Your task to perform on an android device: Go to notification settings Image 0: 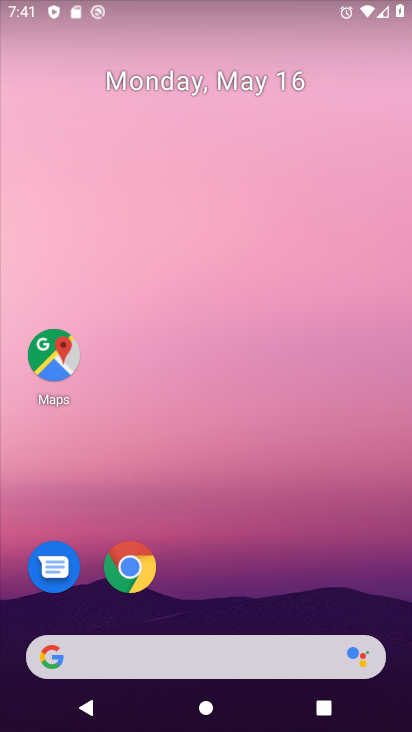
Step 0: drag from (224, 617) to (222, 70)
Your task to perform on an android device: Go to notification settings Image 1: 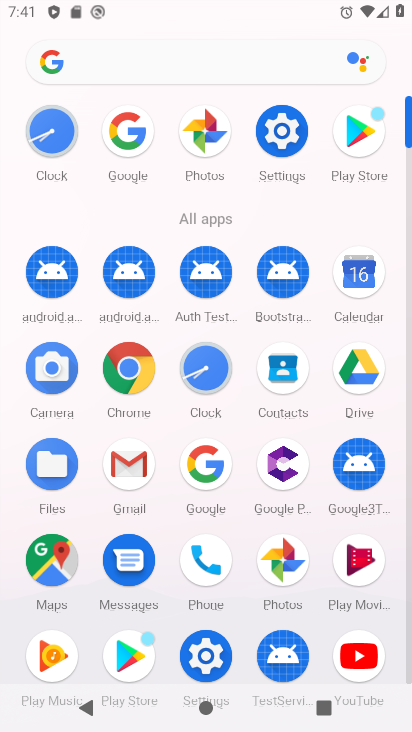
Step 1: click (284, 140)
Your task to perform on an android device: Go to notification settings Image 2: 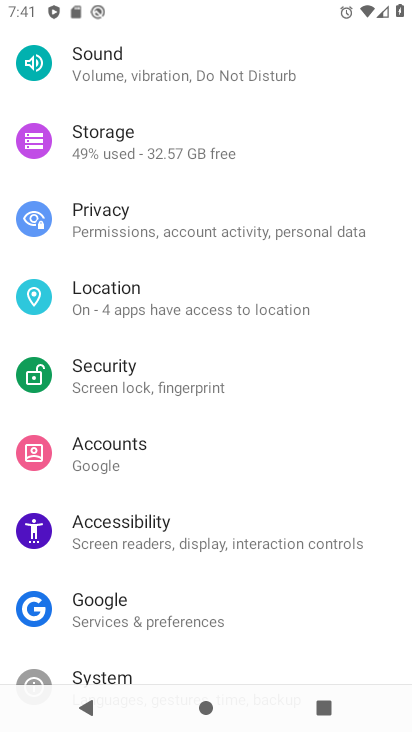
Step 2: drag from (237, 639) to (243, 196)
Your task to perform on an android device: Go to notification settings Image 3: 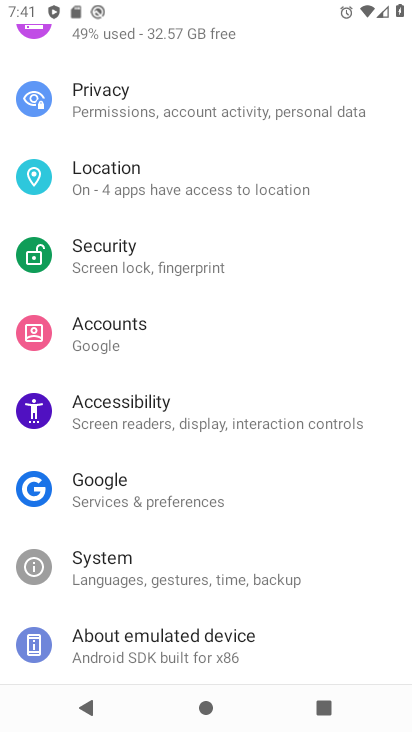
Step 3: click (226, 510)
Your task to perform on an android device: Go to notification settings Image 4: 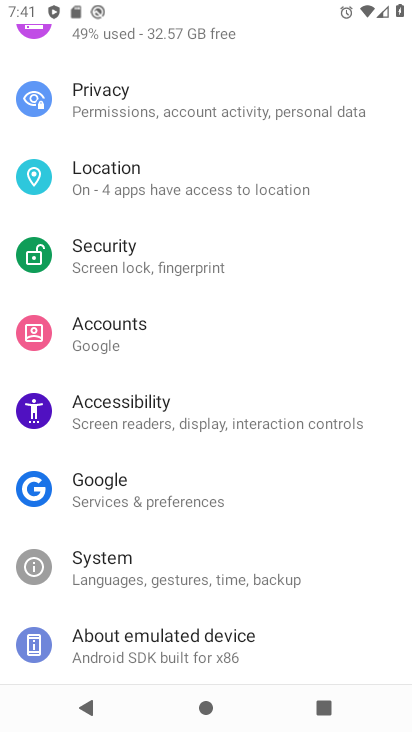
Step 4: click (130, 572)
Your task to perform on an android device: Go to notification settings Image 5: 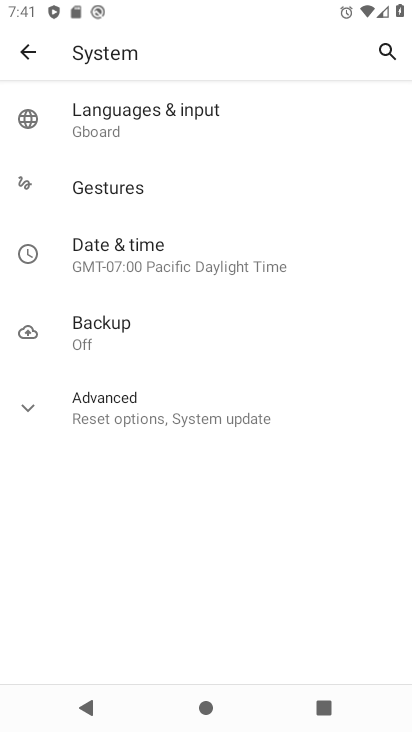
Step 5: click (44, 45)
Your task to perform on an android device: Go to notification settings Image 6: 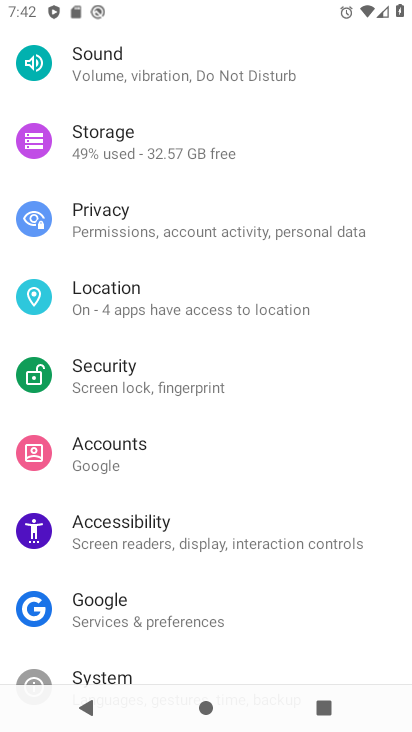
Step 6: drag from (233, 191) to (258, 520)
Your task to perform on an android device: Go to notification settings Image 7: 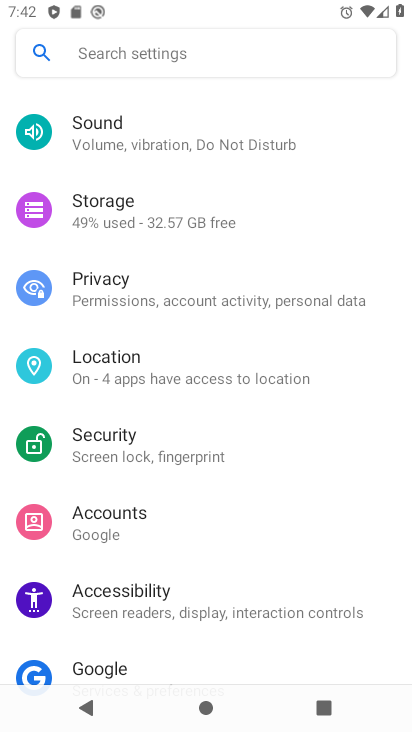
Step 7: drag from (244, 99) to (254, 620)
Your task to perform on an android device: Go to notification settings Image 8: 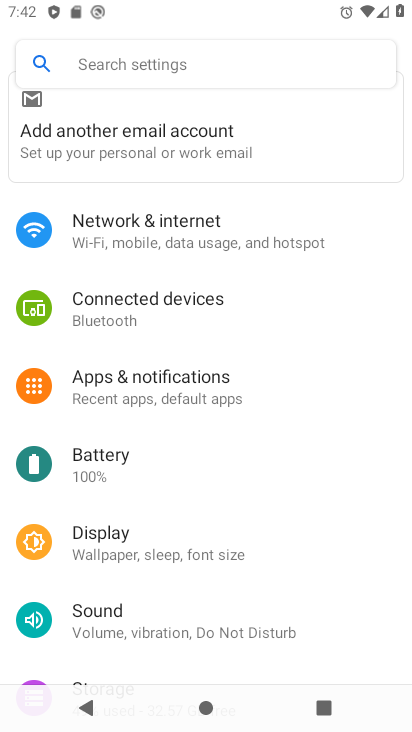
Step 8: click (186, 387)
Your task to perform on an android device: Go to notification settings Image 9: 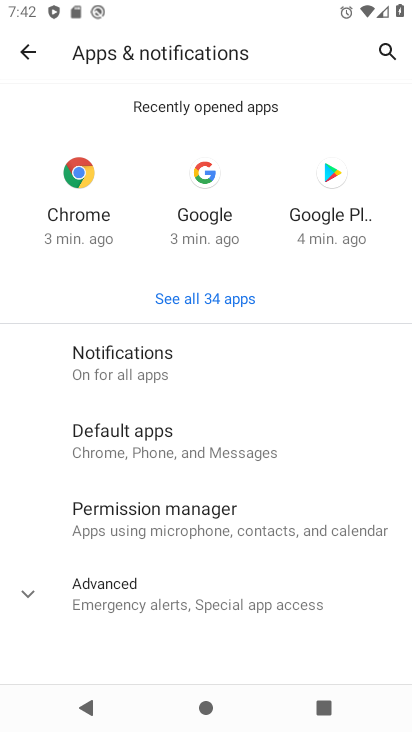
Step 9: click (160, 582)
Your task to perform on an android device: Go to notification settings Image 10: 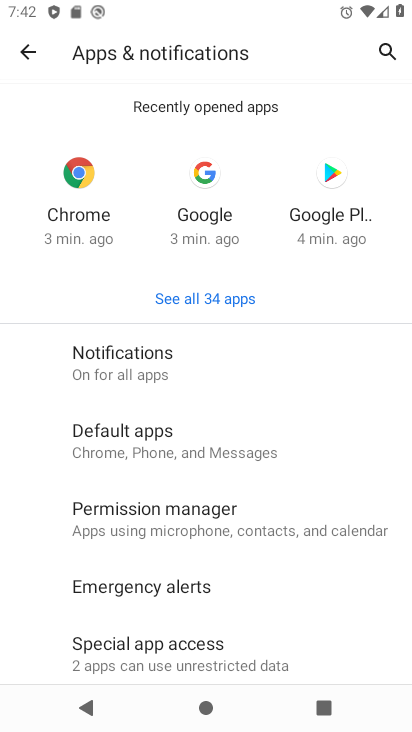
Step 10: task complete